Your task to perform on an android device: Open Chrome and go to settings Image 0: 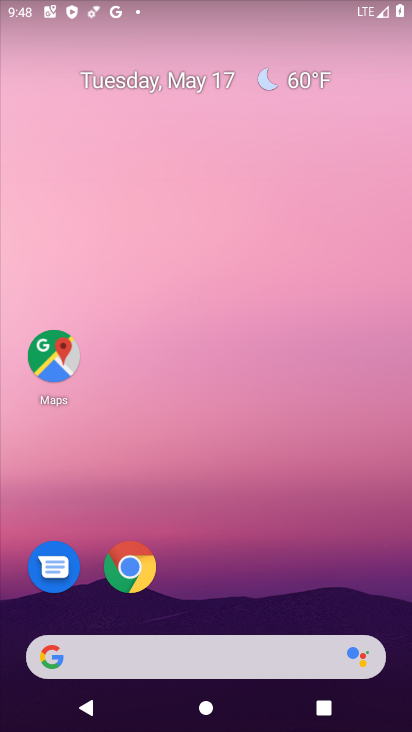
Step 0: drag from (394, 612) to (235, 73)
Your task to perform on an android device: Open Chrome and go to settings Image 1: 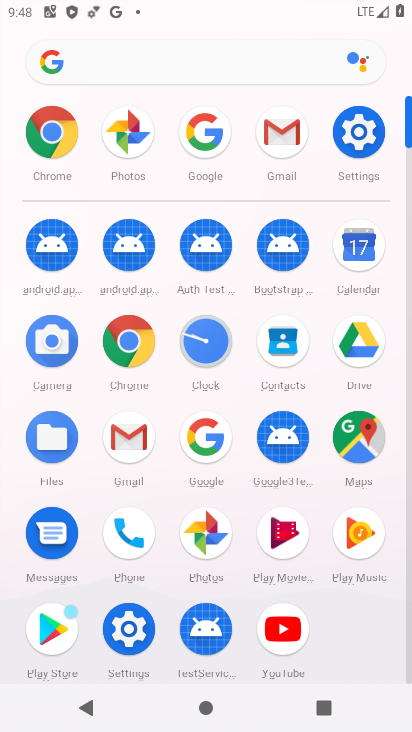
Step 1: click (364, 141)
Your task to perform on an android device: Open Chrome and go to settings Image 2: 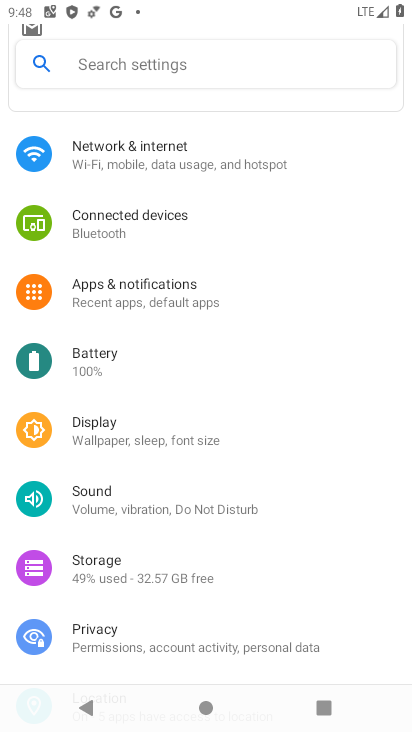
Step 2: press home button
Your task to perform on an android device: Open Chrome and go to settings Image 3: 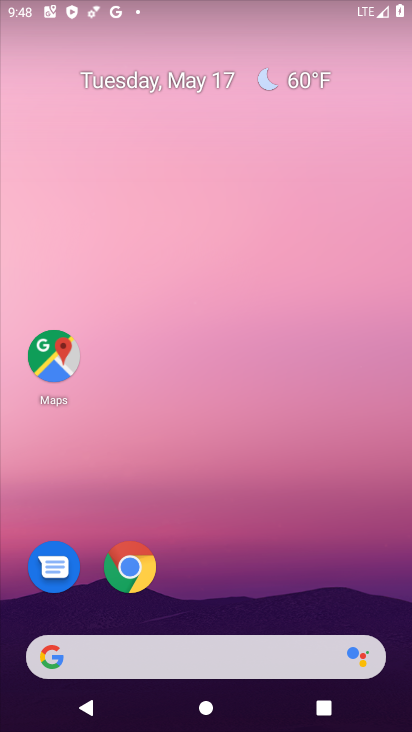
Step 3: drag from (325, 626) to (306, 93)
Your task to perform on an android device: Open Chrome and go to settings Image 4: 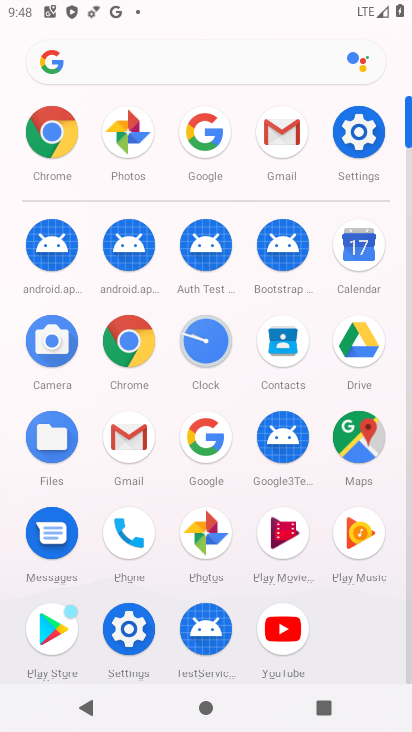
Step 4: click (54, 130)
Your task to perform on an android device: Open Chrome and go to settings Image 5: 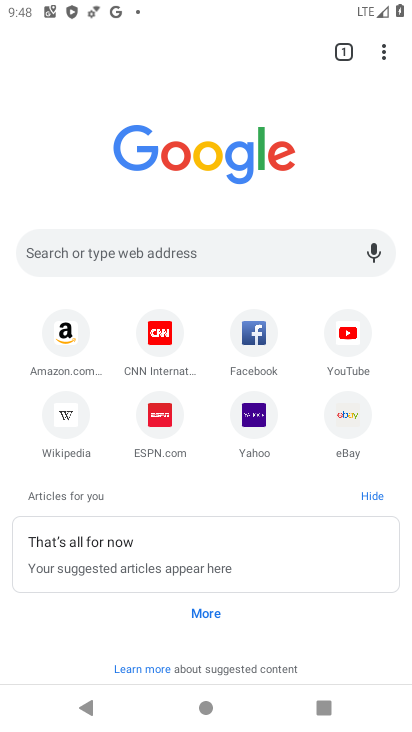
Step 5: click (380, 46)
Your task to perform on an android device: Open Chrome and go to settings Image 6: 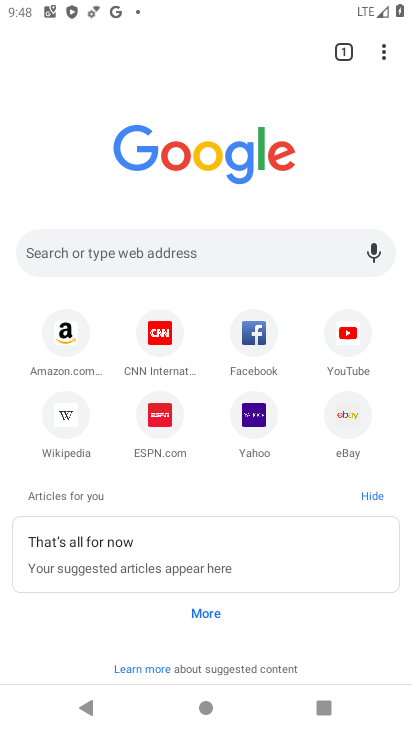
Step 6: click (388, 49)
Your task to perform on an android device: Open Chrome and go to settings Image 7: 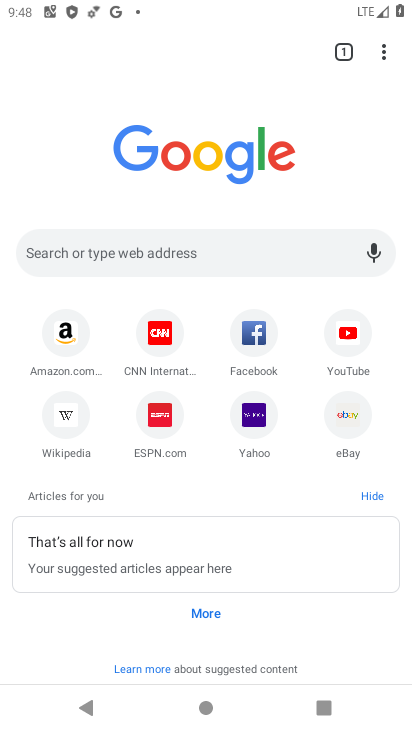
Step 7: click (380, 48)
Your task to perform on an android device: Open Chrome and go to settings Image 8: 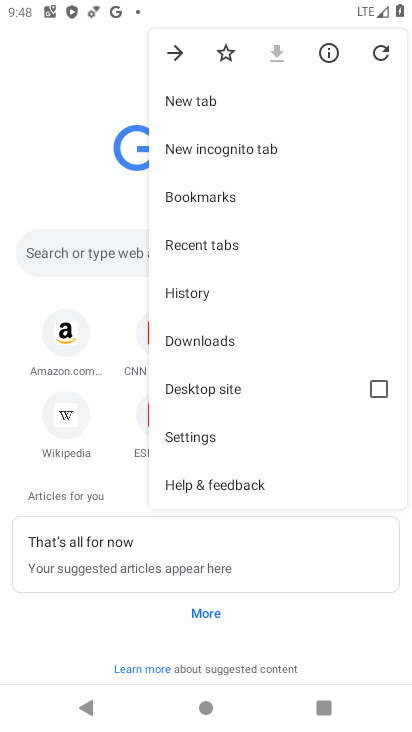
Step 8: click (218, 445)
Your task to perform on an android device: Open Chrome and go to settings Image 9: 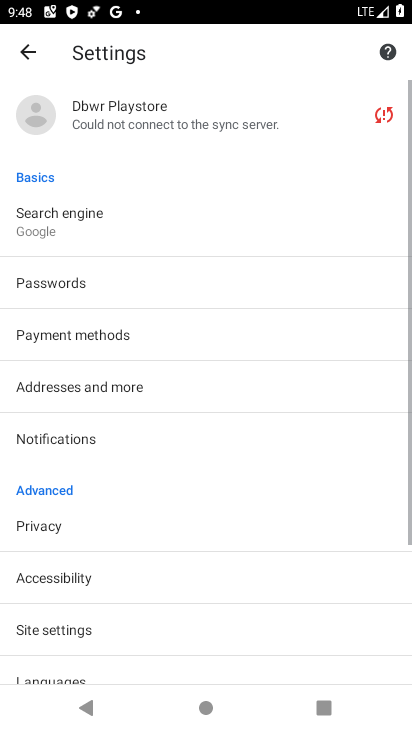
Step 9: task complete